Your task to perform on an android device: What's a good restaurant in Atlanta? Image 0: 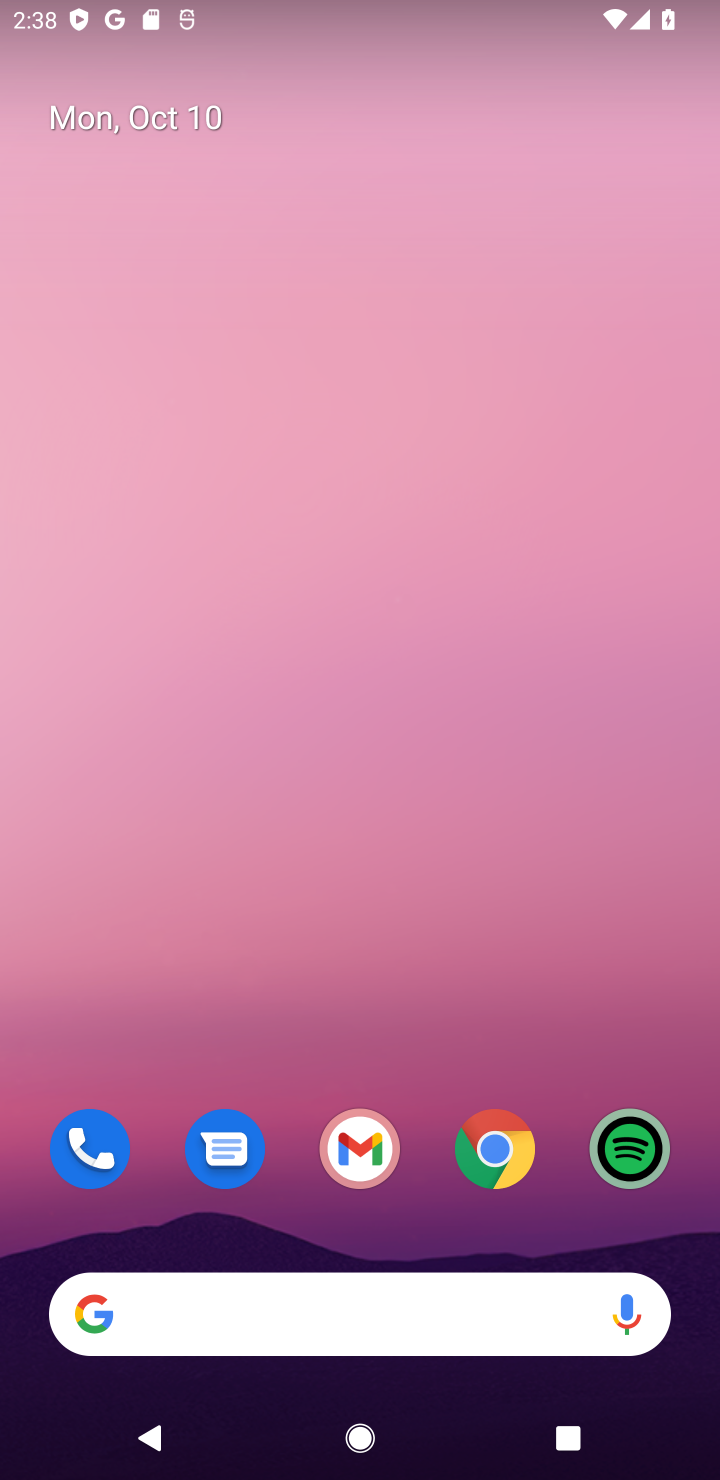
Step 0: click (487, 1299)
Your task to perform on an android device: What's a good restaurant in Atlanta? Image 1: 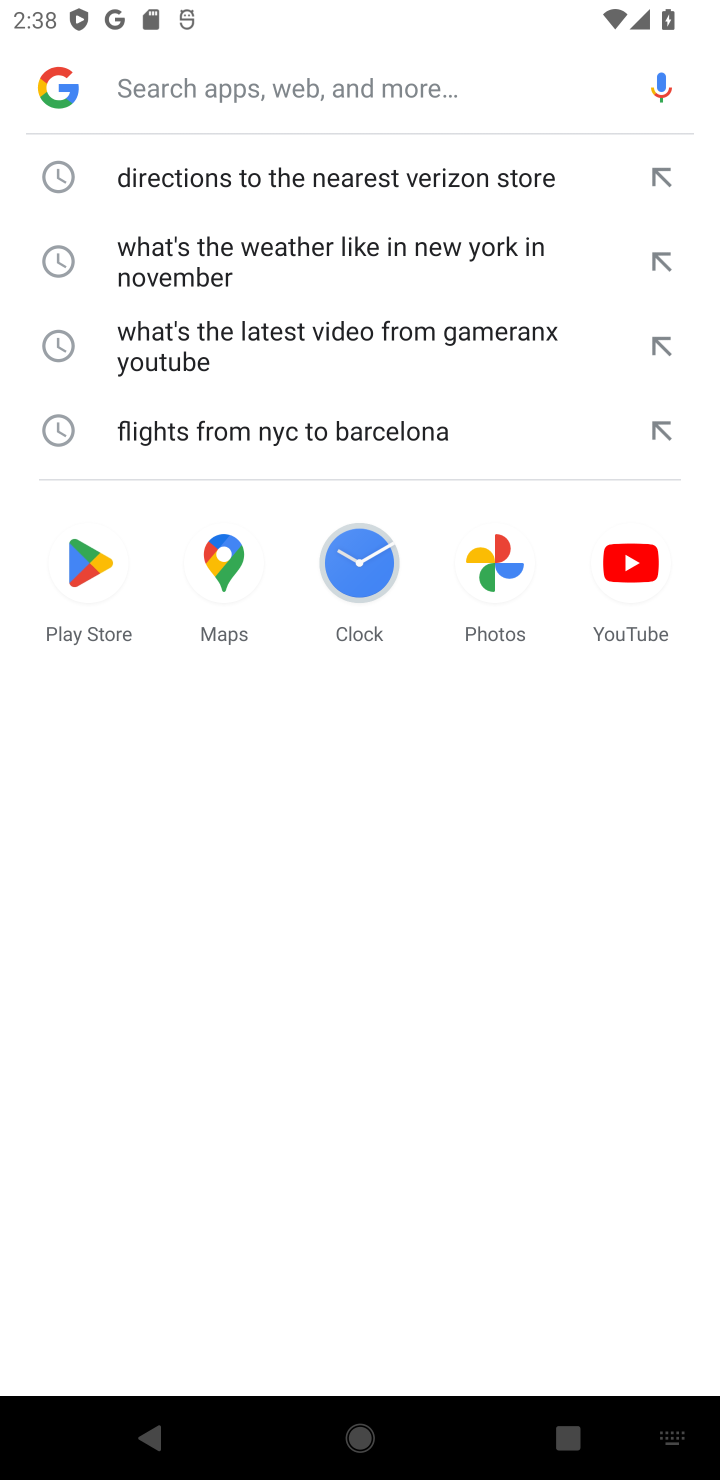
Step 1: type "good restaurant in Atlanta"
Your task to perform on an android device: What's a good restaurant in Atlanta? Image 2: 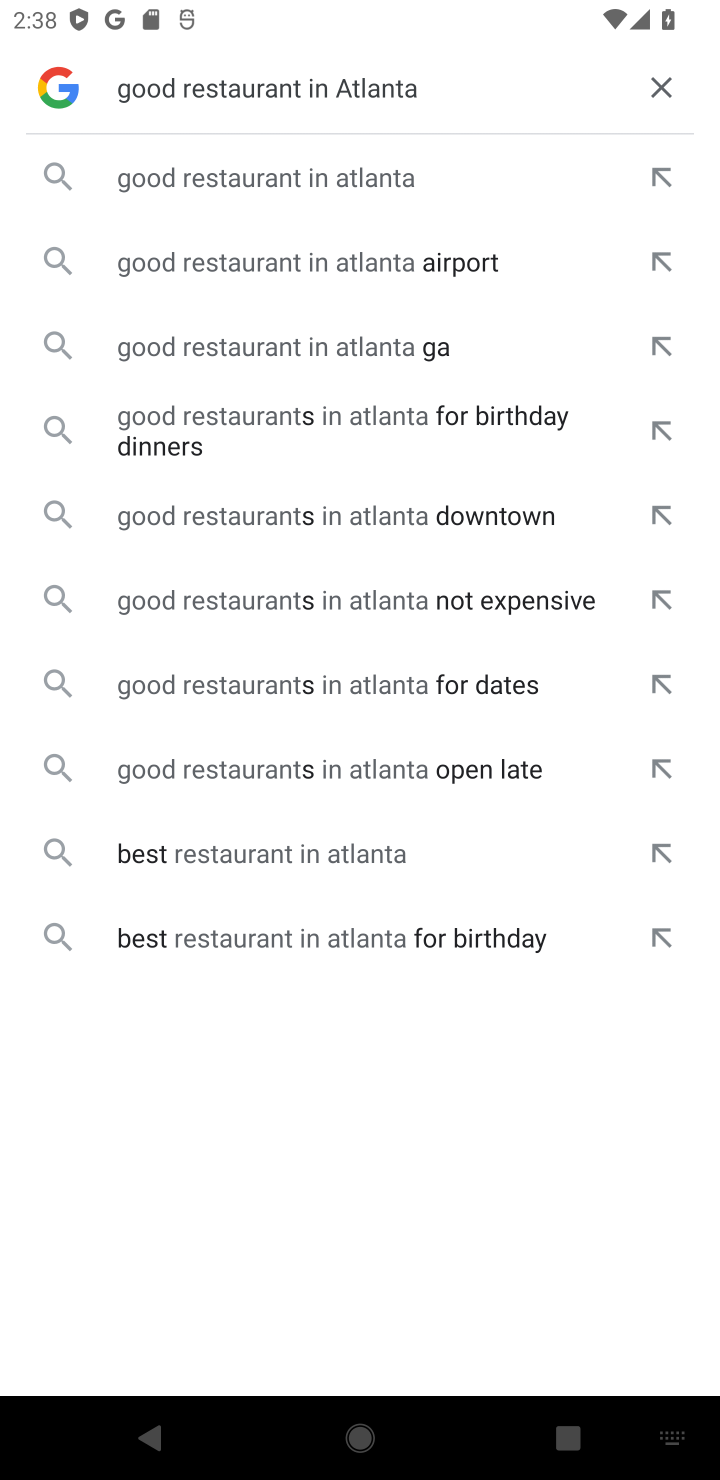
Step 2: click (371, 178)
Your task to perform on an android device: What's a good restaurant in Atlanta? Image 3: 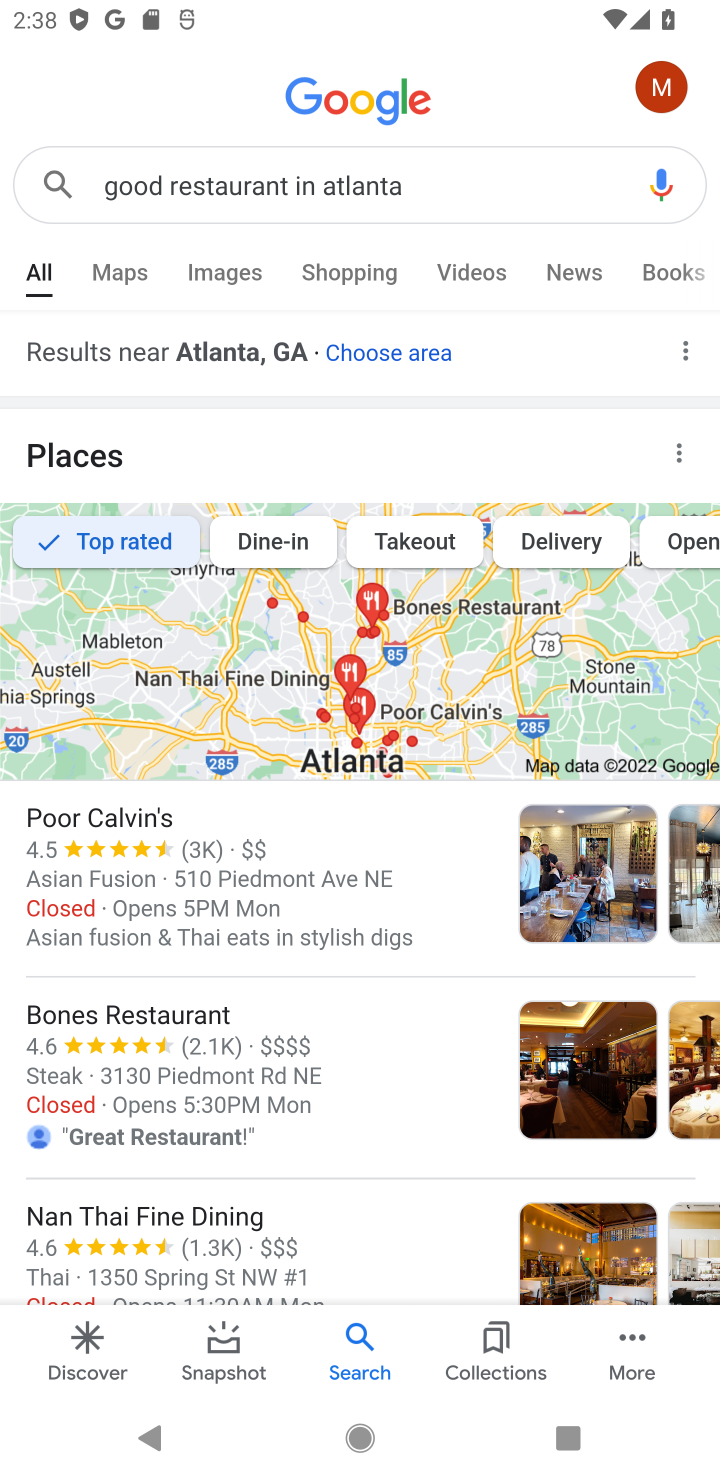
Step 3: task complete